Your task to perform on an android device: manage bookmarks in the chrome app Image 0: 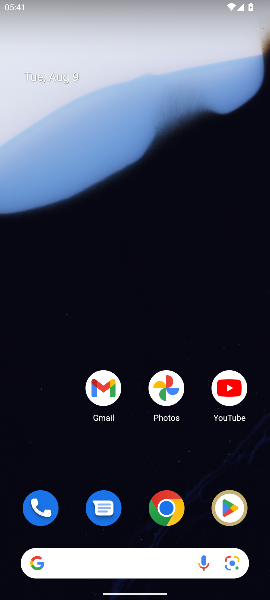
Step 0: click (169, 506)
Your task to perform on an android device: manage bookmarks in the chrome app Image 1: 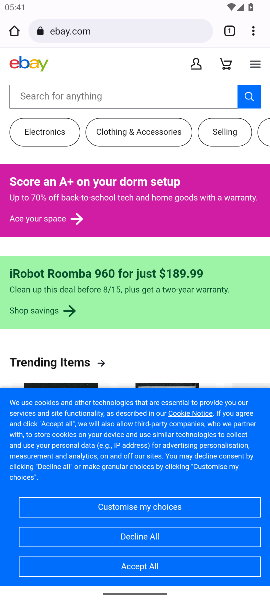
Step 1: click (252, 32)
Your task to perform on an android device: manage bookmarks in the chrome app Image 2: 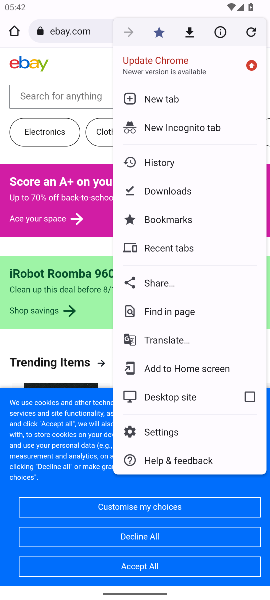
Step 2: click (169, 215)
Your task to perform on an android device: manage bookmarks in the chrome app Image 3: 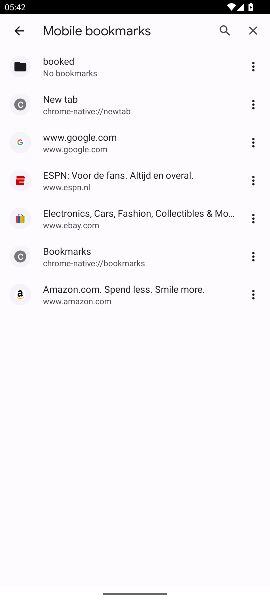
Step 3: click (252, 179)
Your task to perform on an android device: manage bookmarks in the chrome app Image 4: 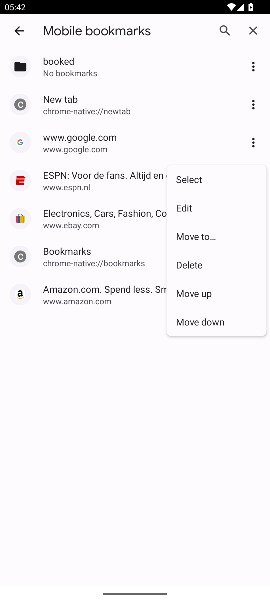
Step 4: click (206, 318)
Your task to perform on an android device: manage bookmarks in the chrome app Image 5: 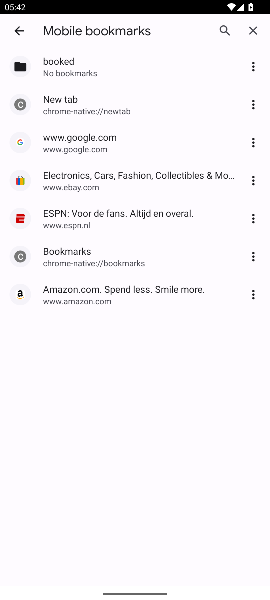
Step 5: task complete